Your task to perform on an android device: Open network settings Image 0: 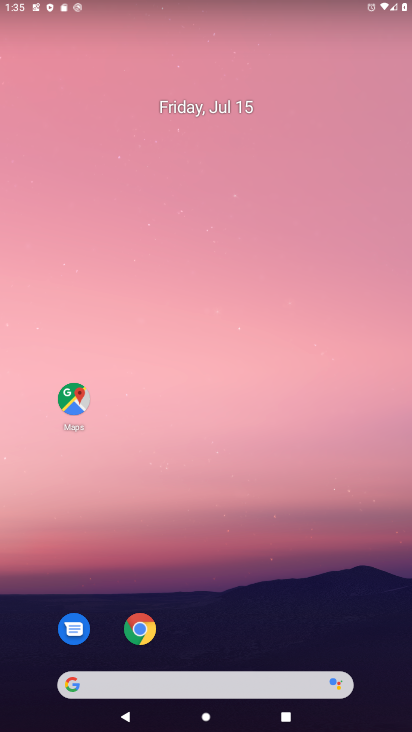
Step 0: drag from (358, 565) to (225, 95)
Your task to perform on an android device: Open network settings Image 1: 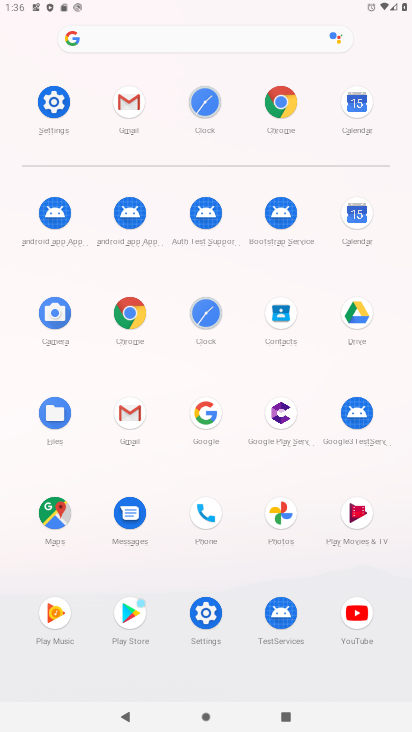
Step 1: click (49, 95)
Your task to perform on an android device: Open network settings Image 2: 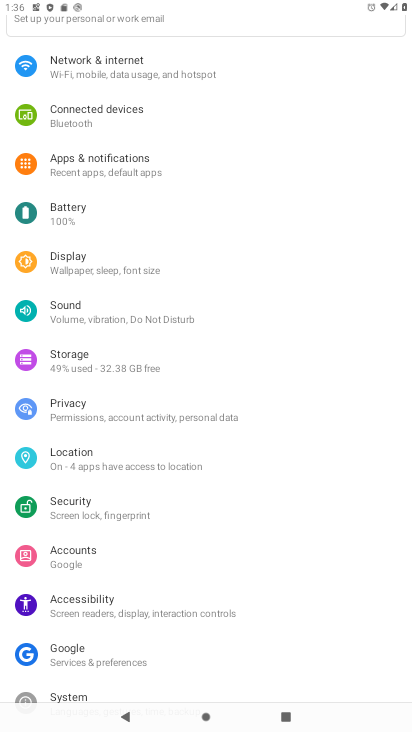
Step 2: click (121, 68)
Your task to perform on an android device: Open network settings Image 3: 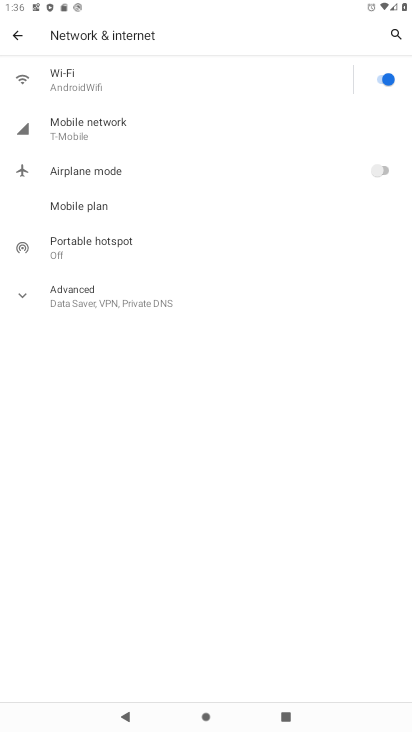
Step 3: task complete